Your task to perform on an android device: turn notification dots on Image 0: 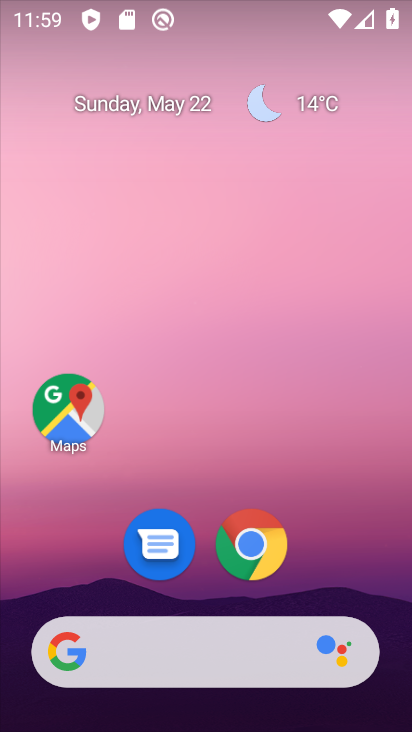
Step 0: drag from (324, 539) to (338, 11)
Your task to perform on an android device: turn notification dots on Image 1: 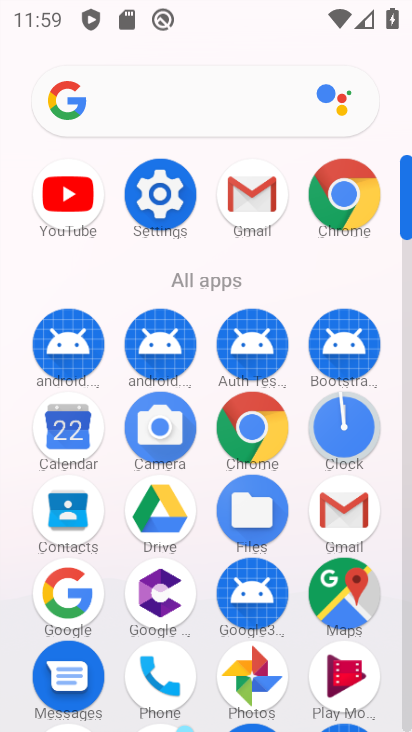
Step 1: click (152, 199)
Your task to perform on an android device: turn notification dots on Image 2: 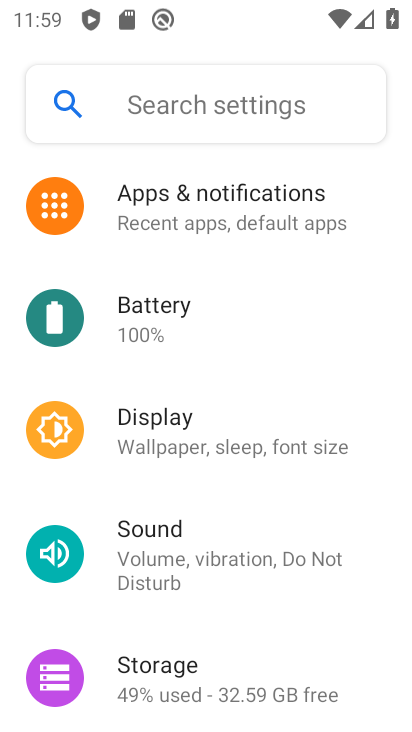
Step 2: click (240, 213)
Your task to perform on an android device: turn notification dots on Image 3: 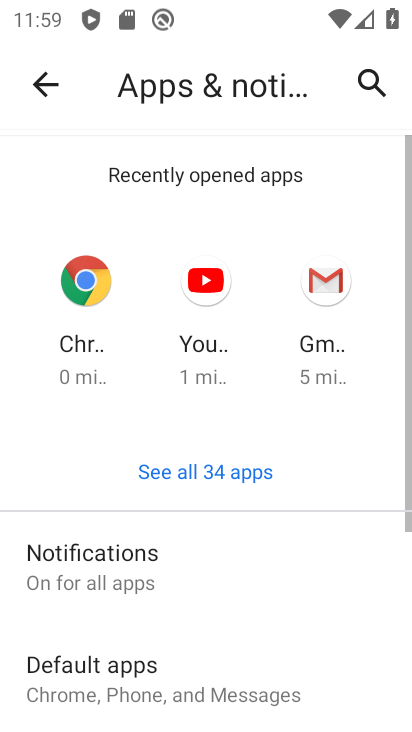
Step 3: click (175, 584)
Your task to perform on an android device: turn notification dots on Image 4: 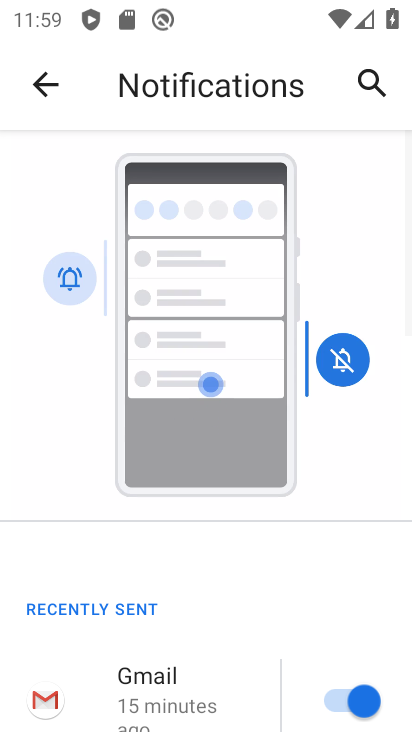
Step 4: drag from (196, 678) to (247, 52)
Your task to perform on an android device: turn notification dots on Image 5: 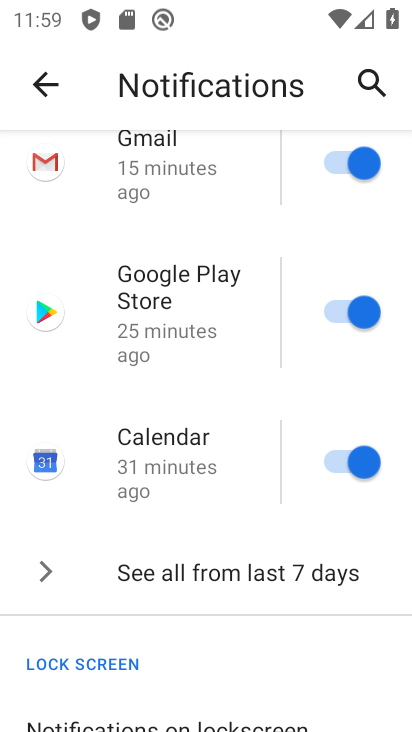
Step 5: drag from (161, 625) to (215, 203)
Your task to perform on an android device: turn notification dots on Image 6: 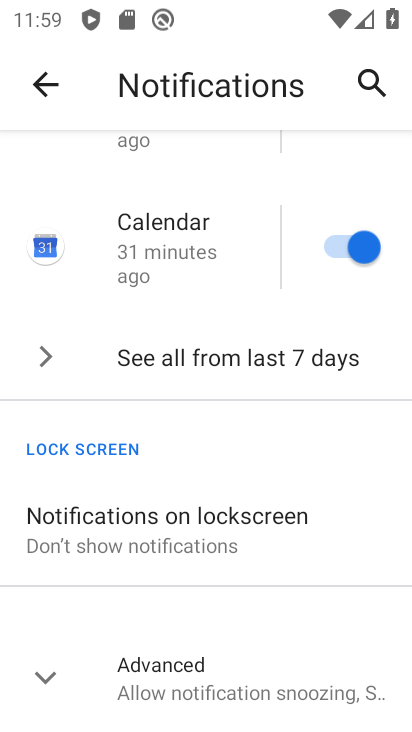
Step 6: click (181, 684)
Your task to perform on an android device: turn notification dots on Image 7: 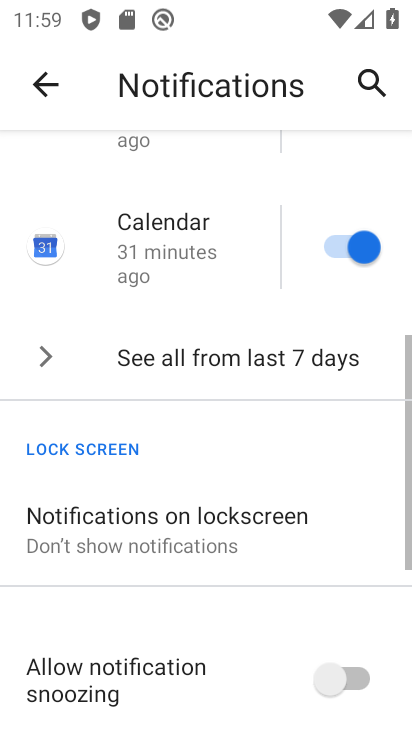
Step 7: task complete